Your task to perform on an android device: Go to internet settings Image 0: 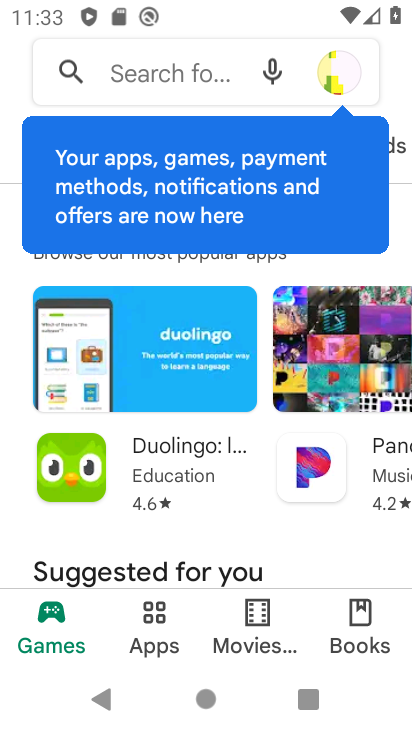
Step 0: press home button
Your task to perform on an android device: Go to internet settings Image 1: 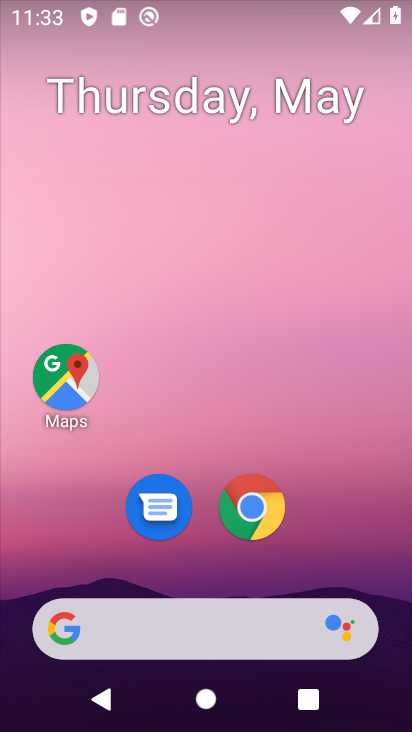
Step 1: drag from (246, 557) to (355, 40)
Your task to perform on an android device: Go to internet settings Image 2: 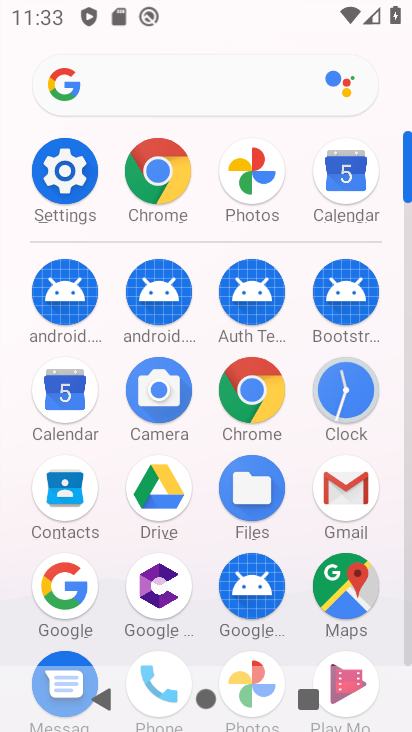
Step 2: click (87, 175)
Your task to perform on an android device: Go to internet settings Image 3: 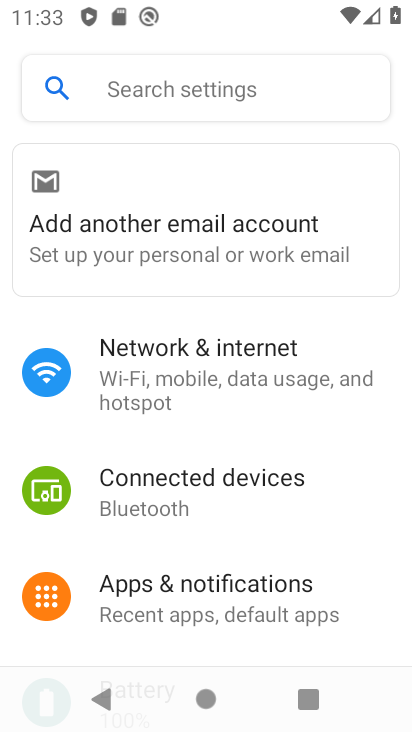
Step 3: click (178, 402)
Your task to perform on an android device: Go to internet settings Image 4: 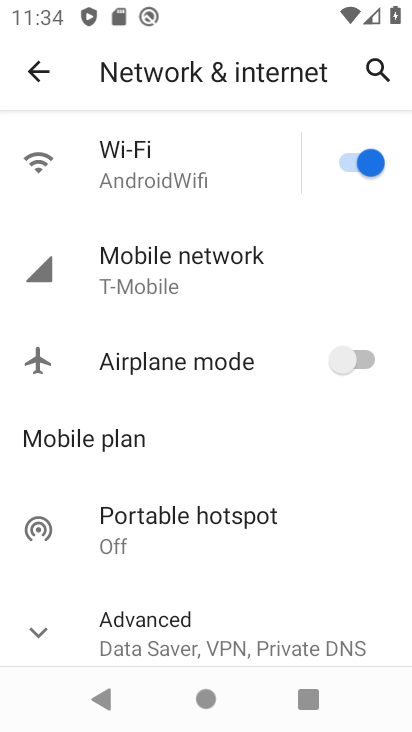
Step 4: click (219, 267)
Your task to perform on an android device: Go to internet settings Image 5: 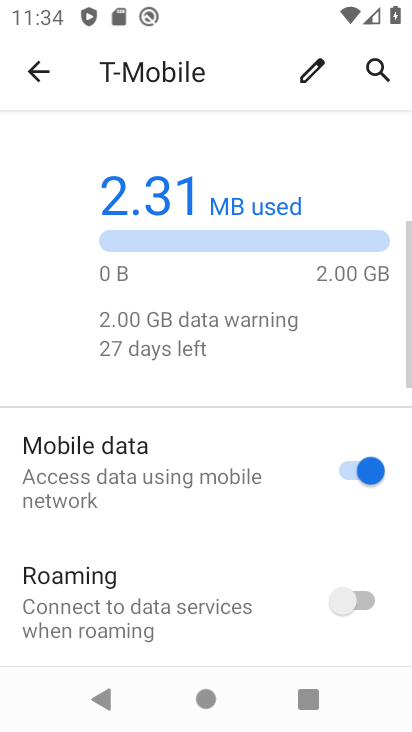
Step 5: task complete